Your task to perform on an android device: Open display settings Image 0: 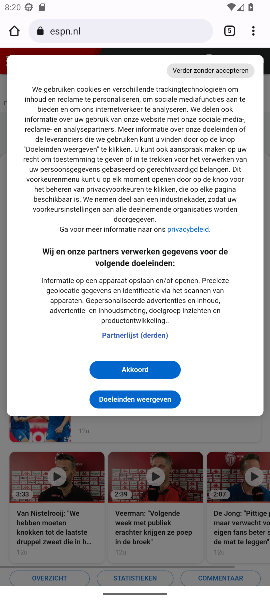
Step 0: press home button
Your task to perform on an android device: Open display settings Image 1: 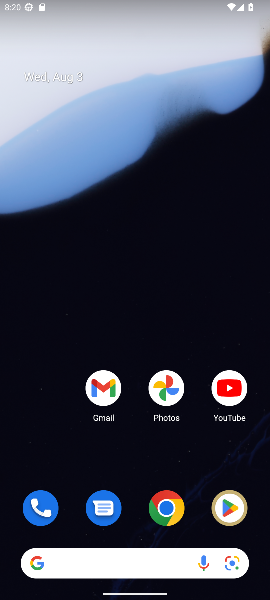
Step 1: drag from (147, 536) to (220, 30)
Your task to perform on an android device: Open display settings Image 2: 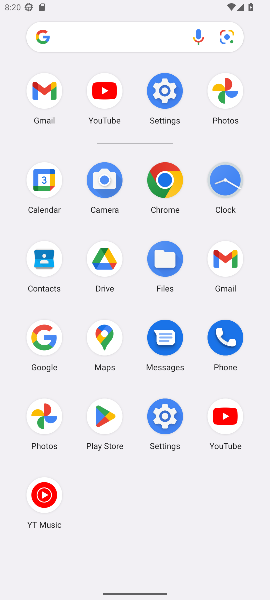
Step 2: click (161, 418)
Your task to perform on an android device: Open display settings Image 3: 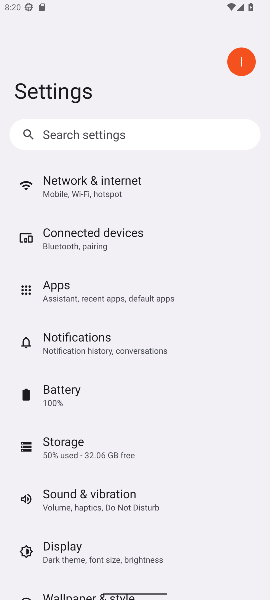
Step 3: click (70, 541)
Your task to perform on an android device: Open display settings Image 4: 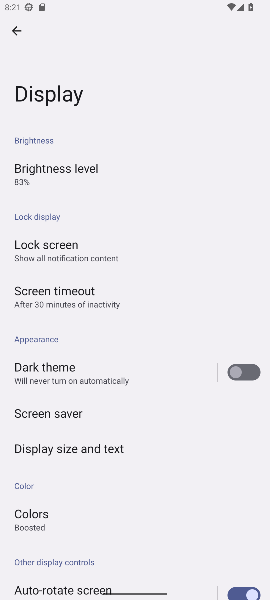
Step 4: task complete